Your task to perform on an android device: Open Google Chrome Image 0: 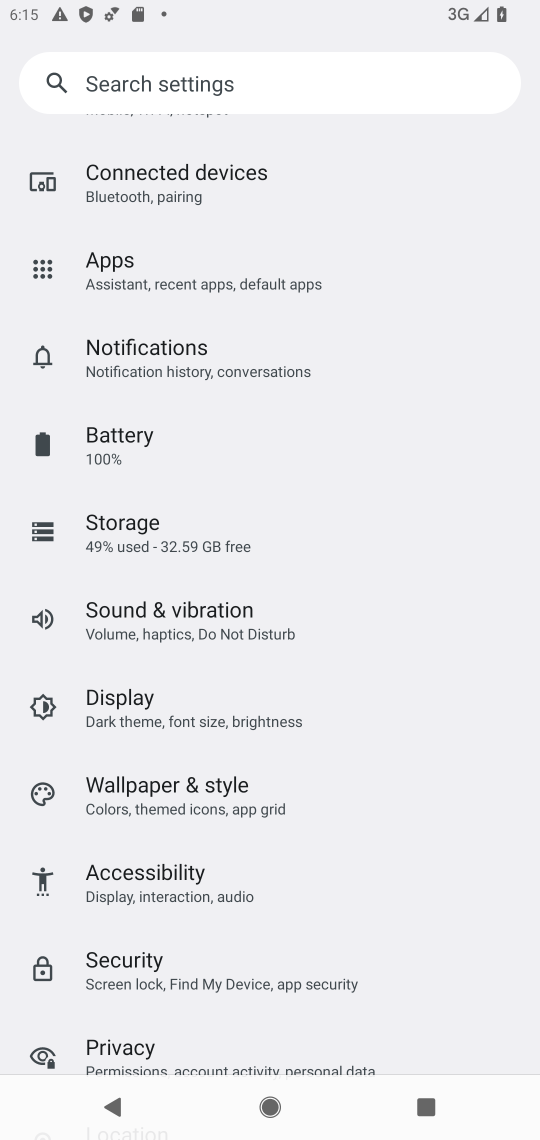
Step 0: press home button
Your task to perform on an android device: Open Google Chrome Image 1: 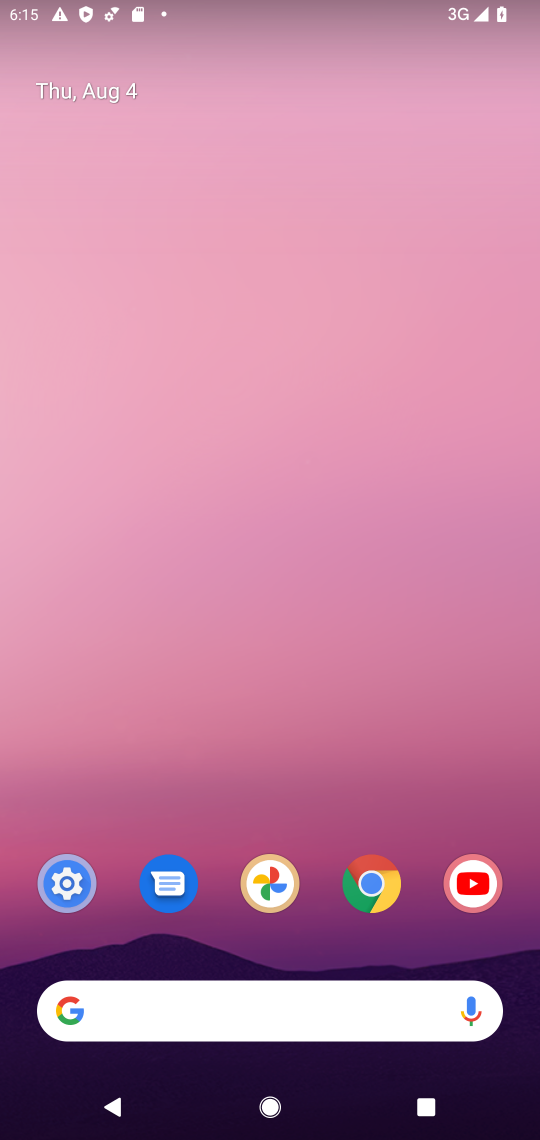
Step 1: click (377, 870)
Your task to perform on an android device: Open Google Chrome Image 2: 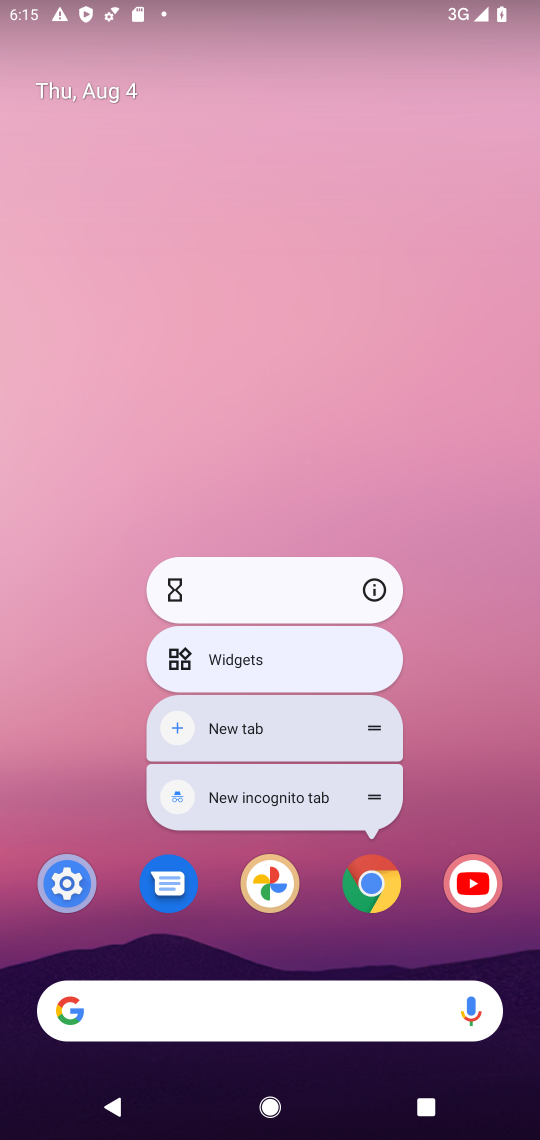
Step 2: click (375, 879)
Your task to perform on an android device: Open Google Chrome Image 3: 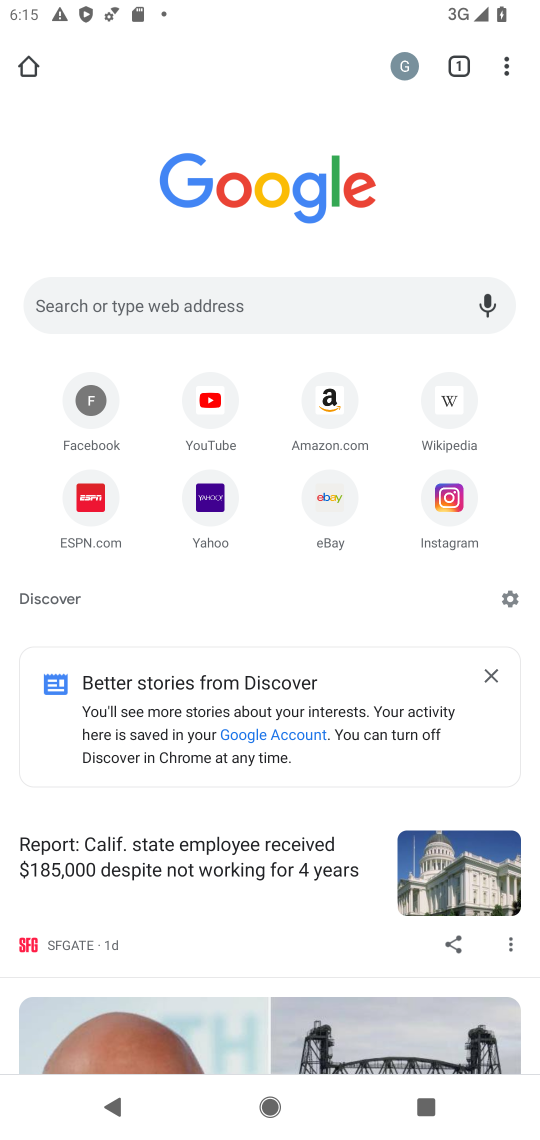
Step 3: task complete